Your task to perform on an android device: turn on bluetooth scan Image 0: 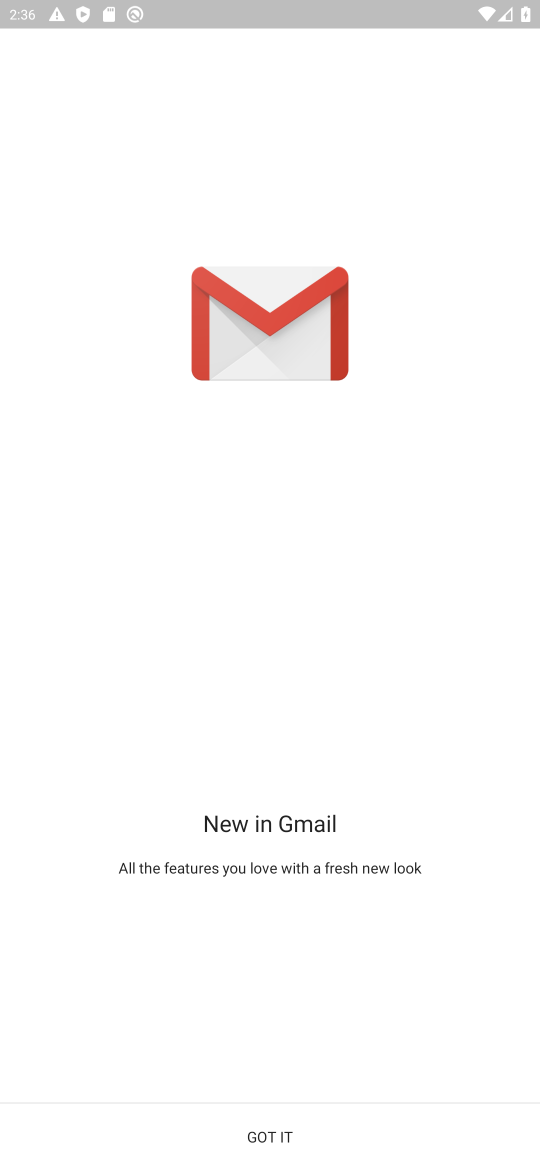
Step 0: press home button
Your task to perform on an android device: turn on bluetooth scan Image 1: 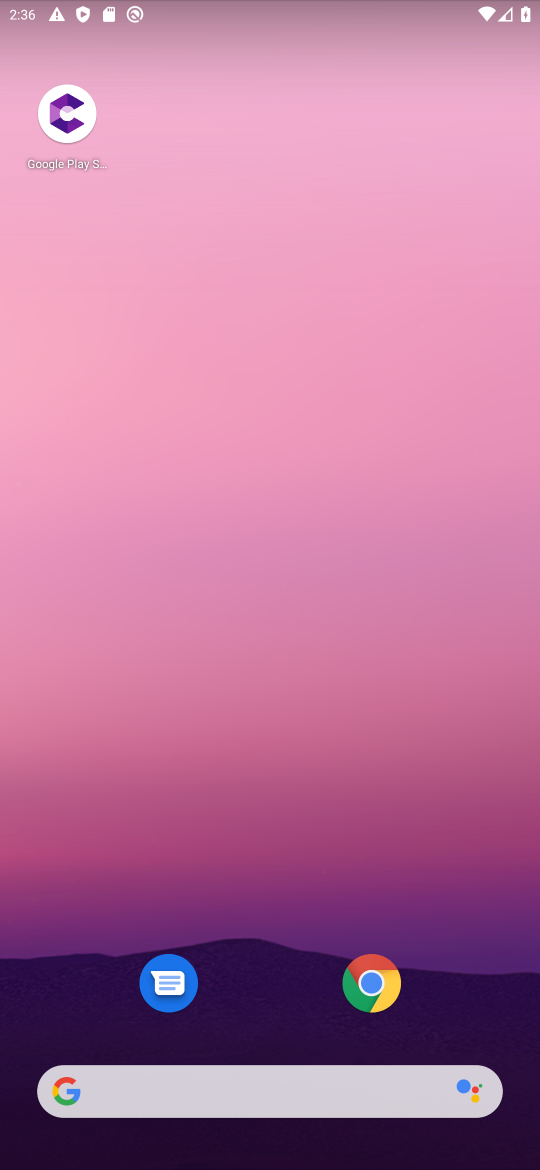
Step 1: drag from (300, 1094) to (277, 65)
Your task to perform on an android device: turn on bluetooth scan Image 2: 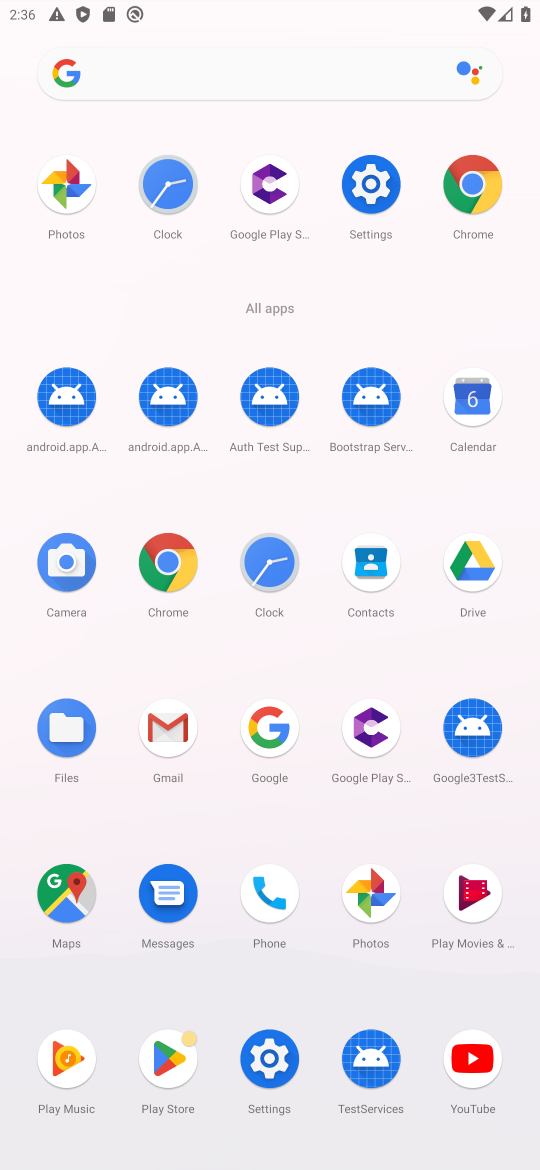
Step 2: click (391, 178)
Your task to perform on an android device: turn on bluetooth scan Image 3: 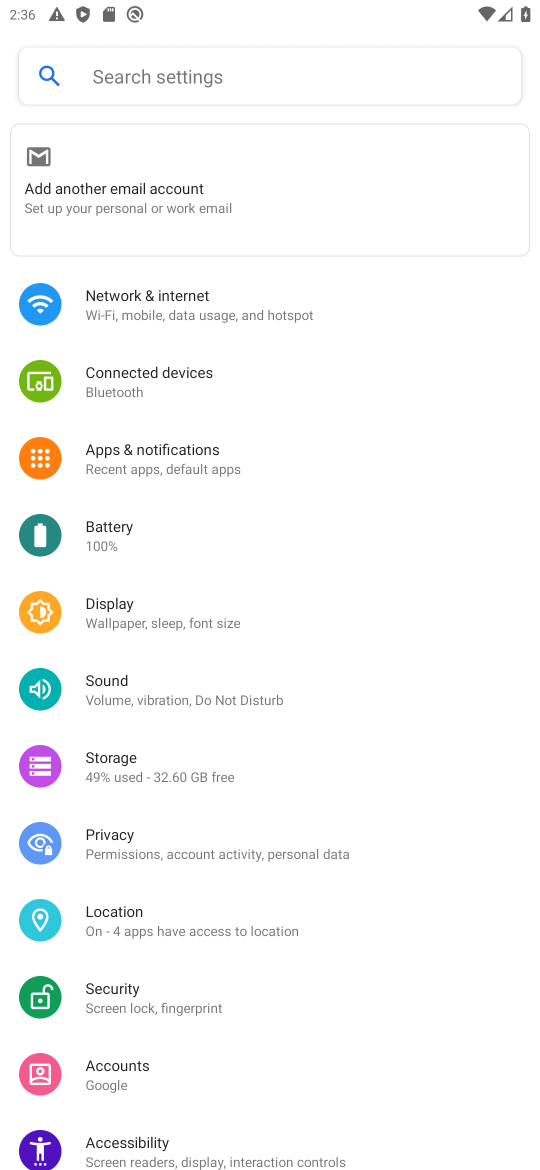
Step 3: click (238, 918)
Your task to perform on an android device: turn on bluetooth scan Image 4: 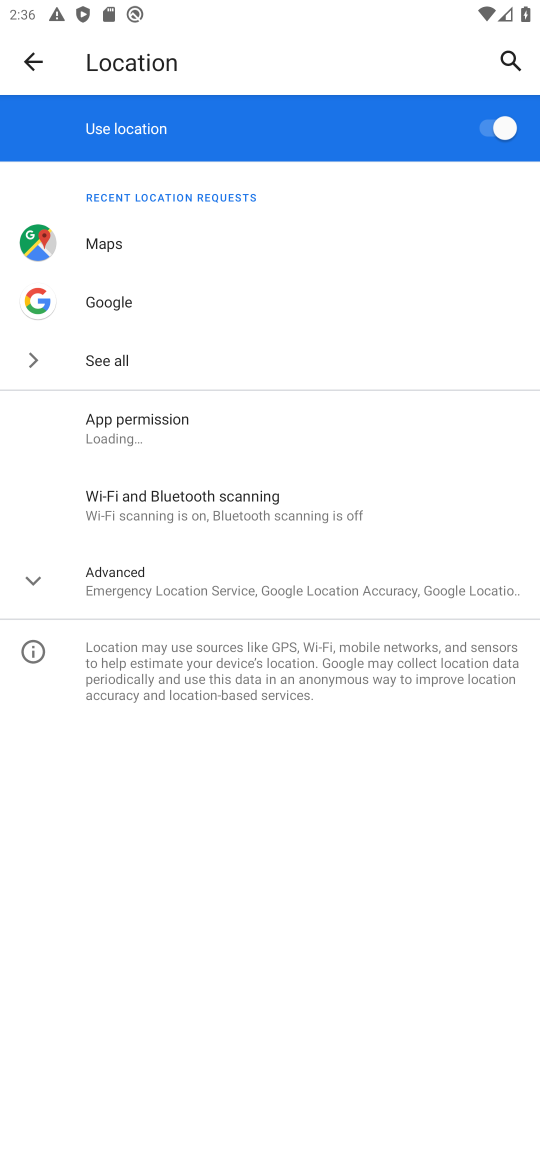
Step 4: click (222, 514)
Your task to perform on an android device: turn on bluetooth scan Image 5: 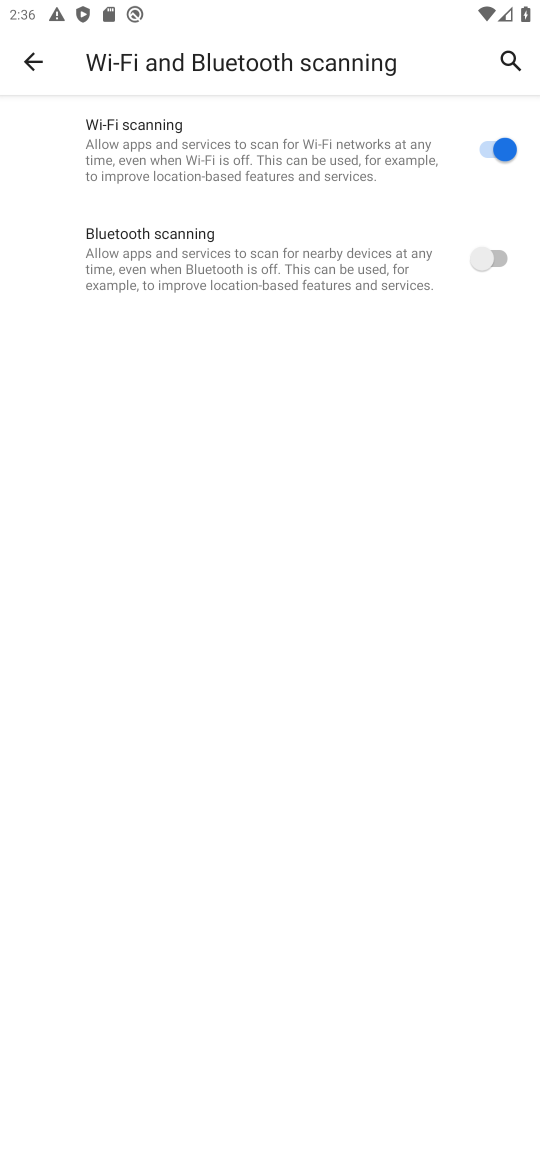
Step 5: click (499, 254)
Your task to perform on an android device: turn on bluetooth scan Image 6: 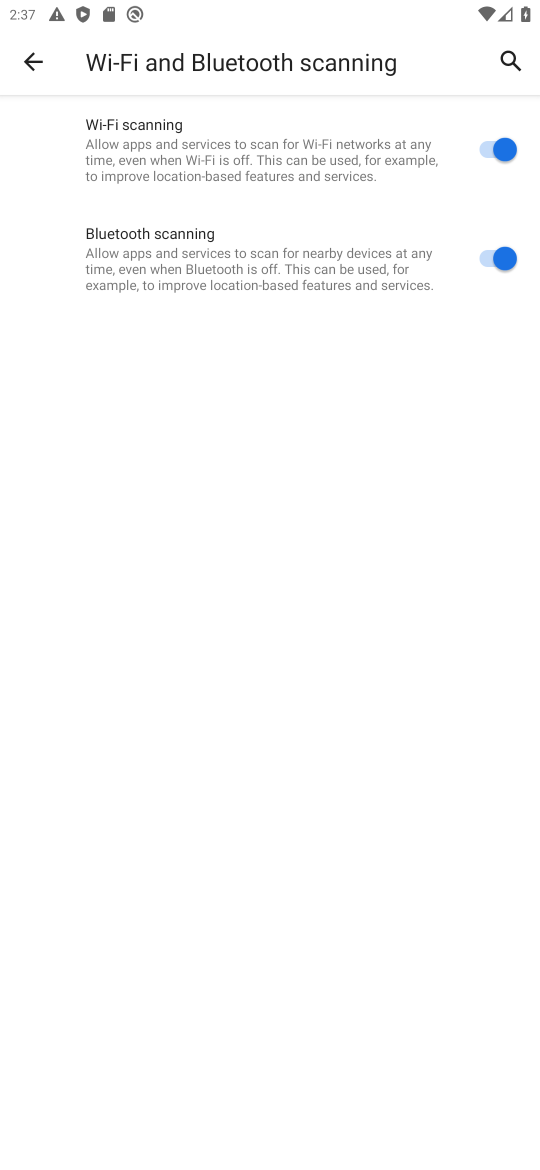
Step 6: task complete